Your task to perform on an android device: check android version Image 0: 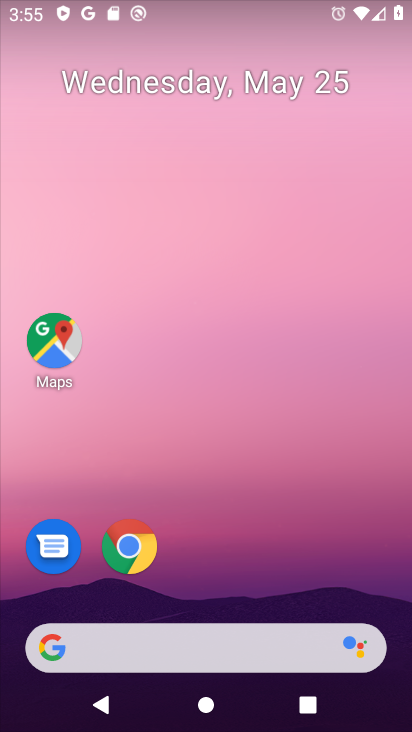
Step 0: drag from (238, 575) to (237, 1)
Your task to perform on an android device: check android version Image 1: 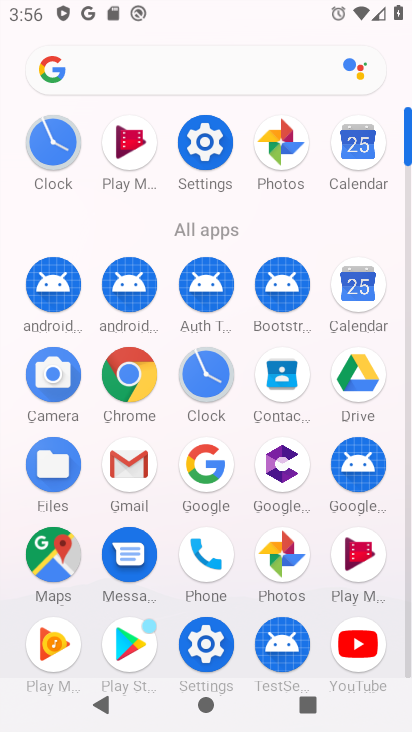
Step 1: click (209, 643)
Your task to perform on an android device: check android version Image 2: 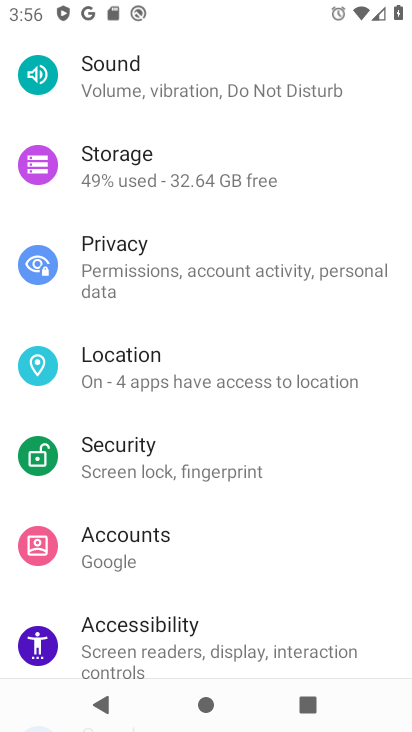
Step 2: drag from (181, 623) to (266, 109)
Your task to perform on an android device: check android version Image 3: 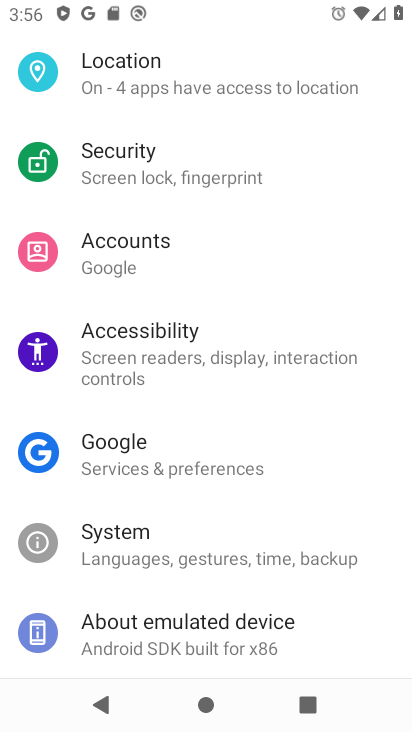
Step 3: click (138, 645)
Your task to perform on an android device: check android version Image 4: 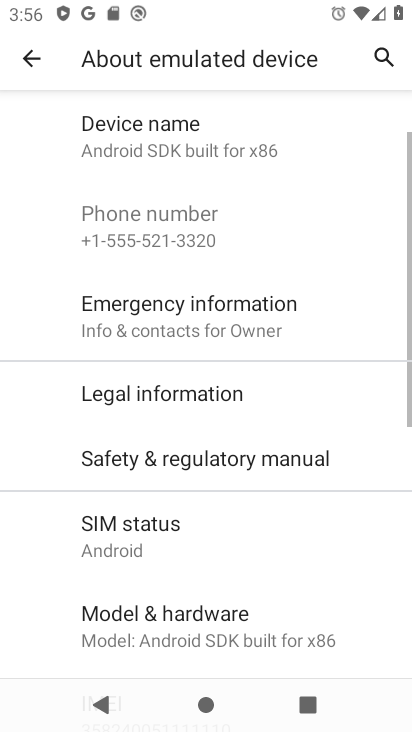
Step 4: drag from (168, 629) to (210, 251)
Your task to perform on an android device: check android version Image 5: 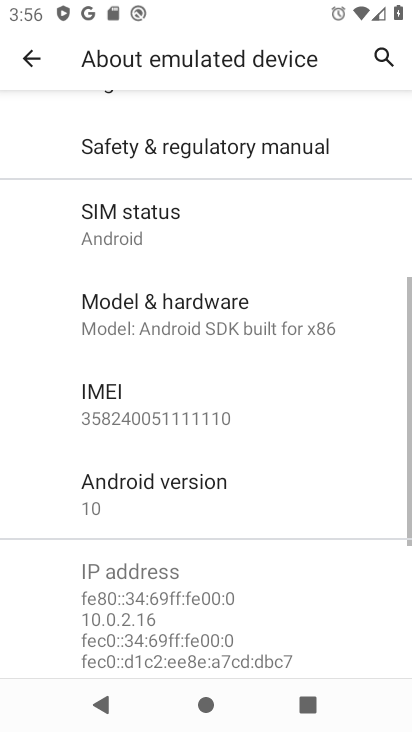
Step 5: click (143, 506)
Your task to perform on an android device: check android version Image 6: 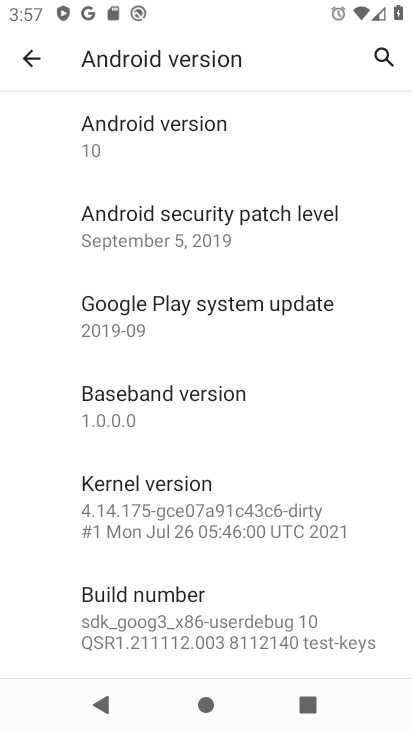
Step 6: click (229, 155)
Your task to perform on an android device: check android version Image 7: 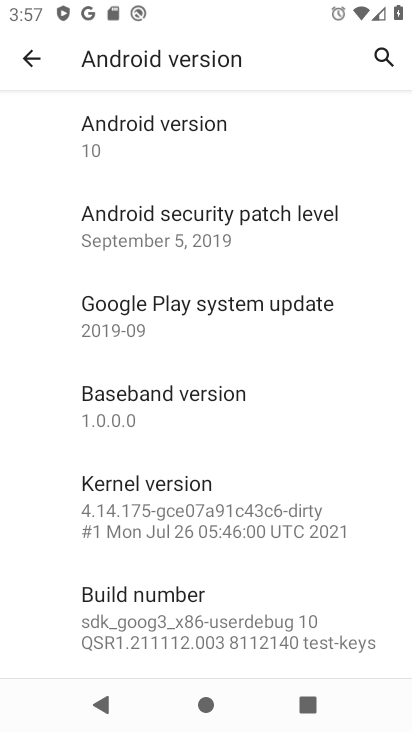
Step 7: task complete